Your task to perform on an android device: make emails show in primary in the gmail app Image 0: 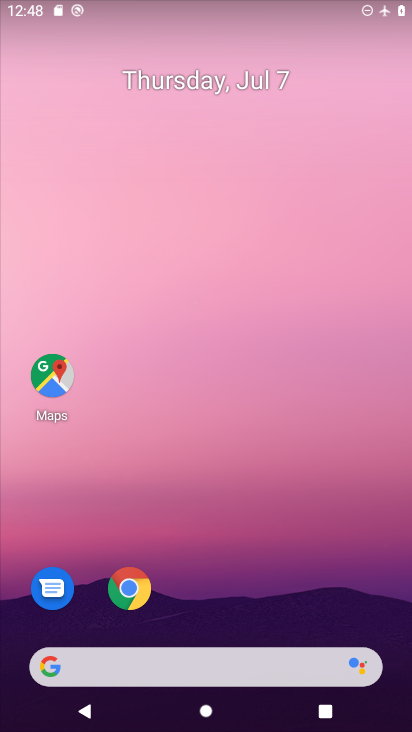
Step 0: drag from (329, 659) to (328, 12)
Your task to perform on an android device: make emails show in primary in the gmail app Image 1: 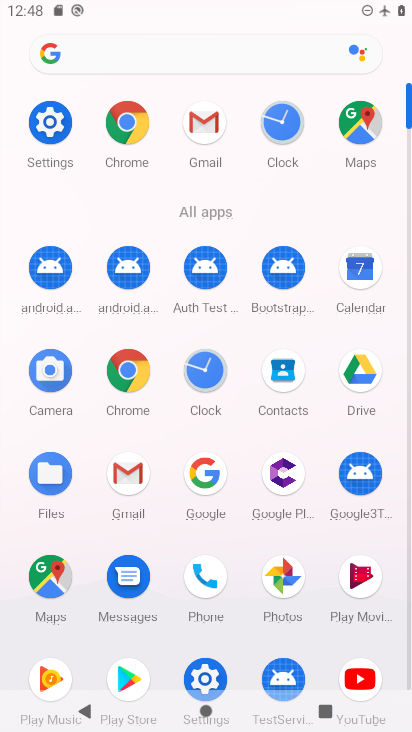
Step 1: click (118, 493)
Your task to perform on an android device: make emails show in primary in the gmail app Image 2: 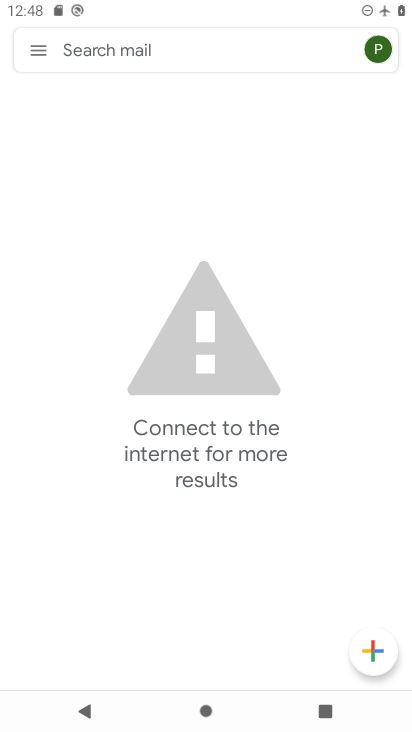
Step 2: click (36, 56)
Your task to perform on an android device: make emails show in primary in the gmail app Image 3: 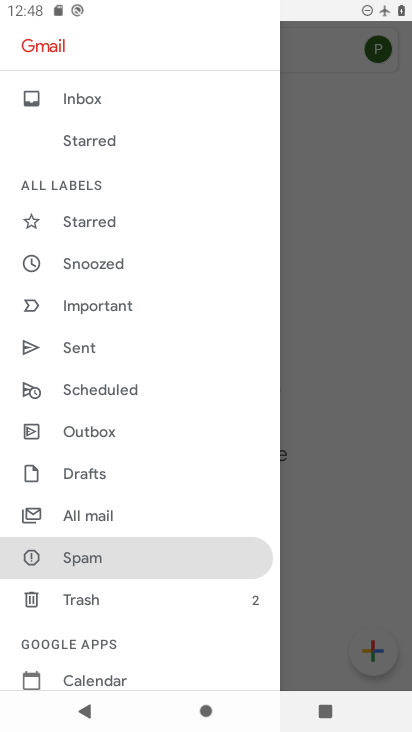
Step 3: drag from (150, 624) to (127, 145)
Your task to perform on an android device: make emails show in primary in the gmail app Image 4: 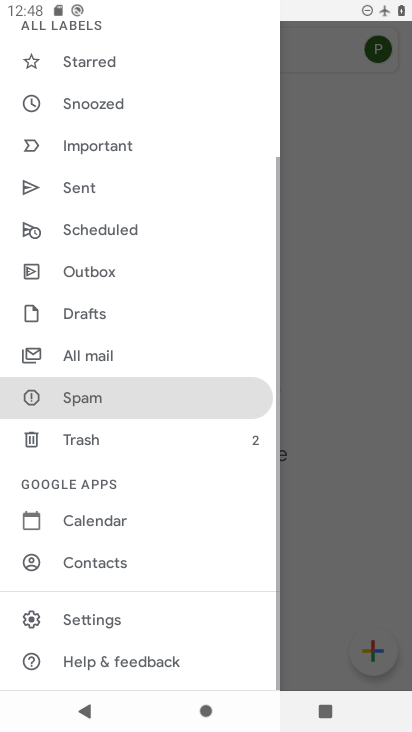
Step 4: click (143, 630)
Your task to perform on an android device: make emails show in primary in the gmail app Image 5: 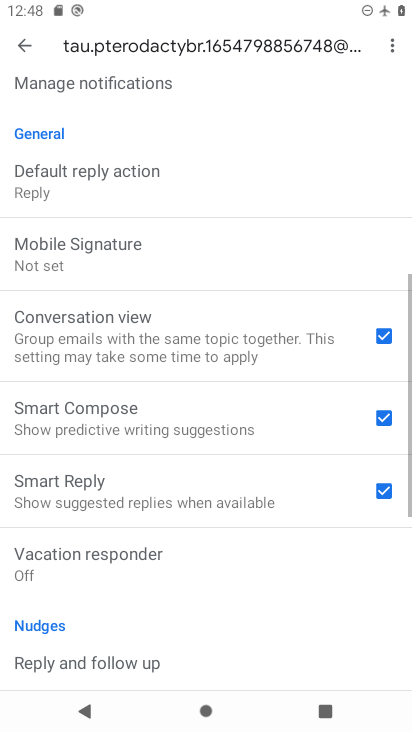
Step 5: drag from (142, 197) to (217, 706)
Your task to perform on an android device: make emails show in primary in the gmail app Image 6: 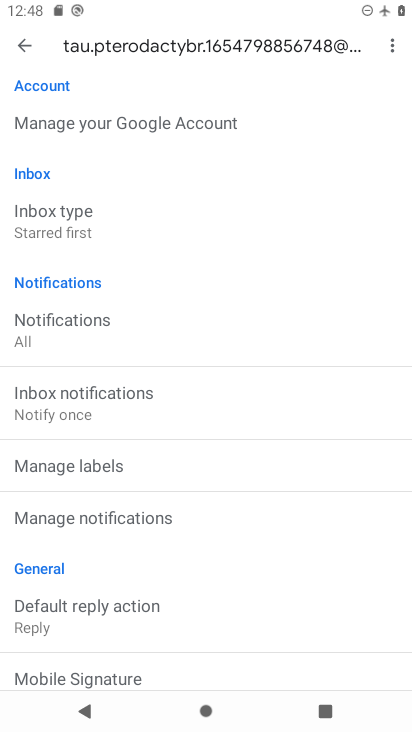
Step 6: drag from (149, 264) to (119, 516)
Your task to perform on an android device: make emails show in primary in the gmail app Image 7: 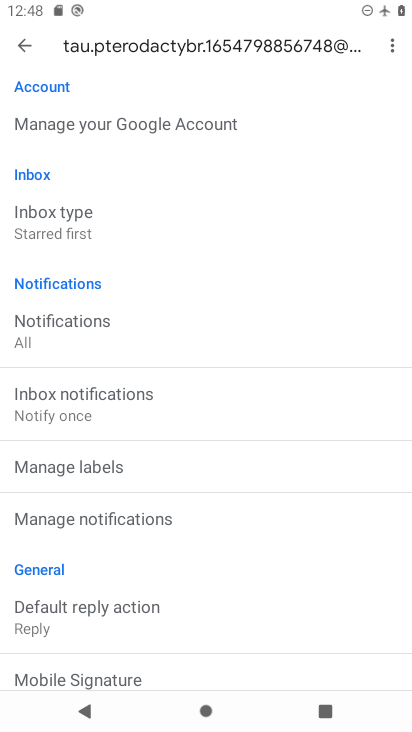
Step 7: click (87, 235)
Your task to perform on an android device: make emails show in primary in the gmail app Image 8: 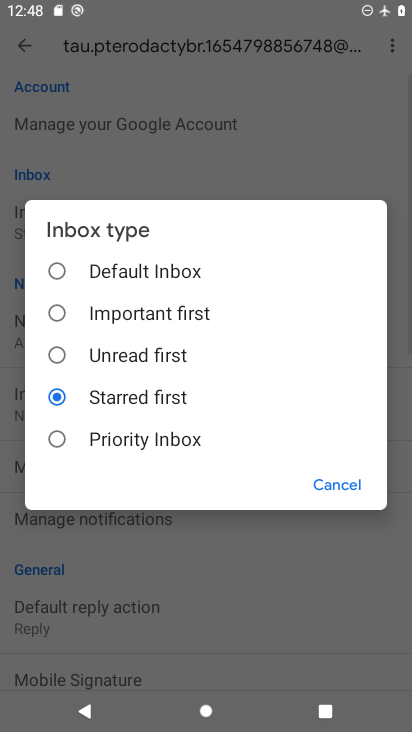
Step 8: click (102, 268)
Your task to perform on an android device: make emails show in primary in the gmail app Image 9: 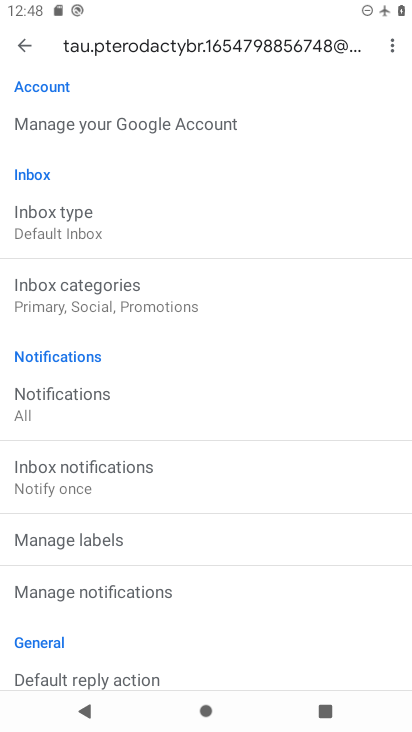
Step 9: press back button
Your task to perform on an android device: make emails show in primary in the gmail app Image 10: 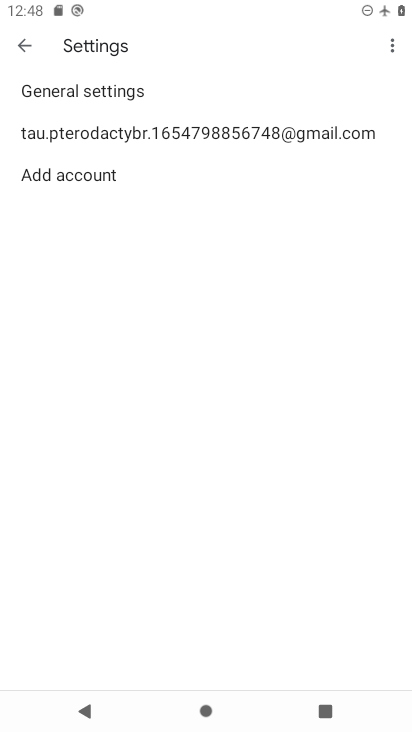
Step 10: press back button
Your task to perform on an android device: make emails show in primary in the gmail app Image 11: 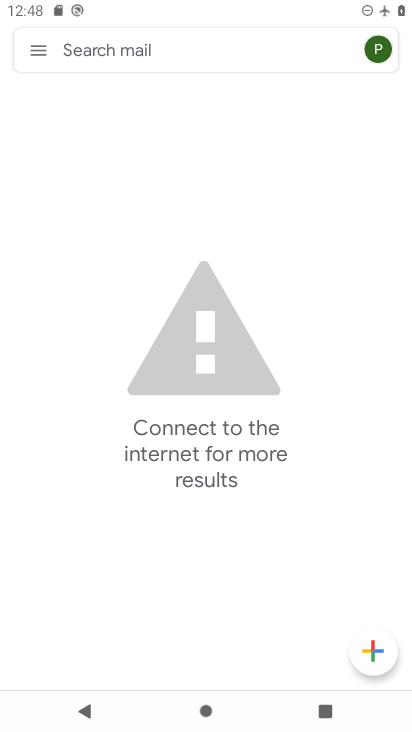
Step 11: click (31, 47)
Your task to perform on an android device: make emails show in primary in the gmail app Image 12: 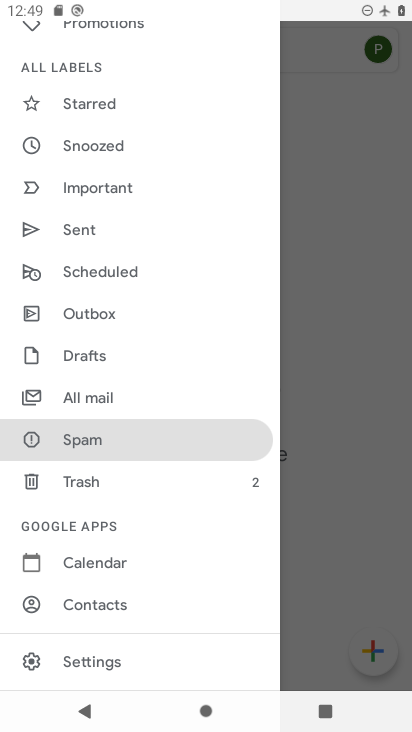
Step 12: drag from (155, 81) to (87, 670)
Your task to perform on an android device: make emails show in primary in the gmail app Image 13: 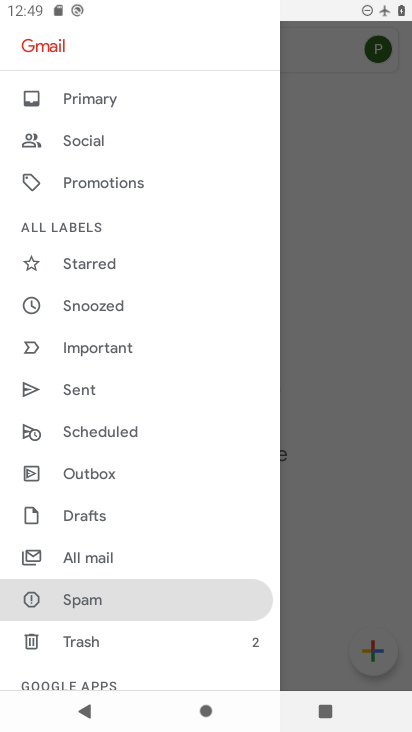
Step 13: click (123, 88)
Your task to perform on an android device: make emails show in primary in the gmail app Image 14: 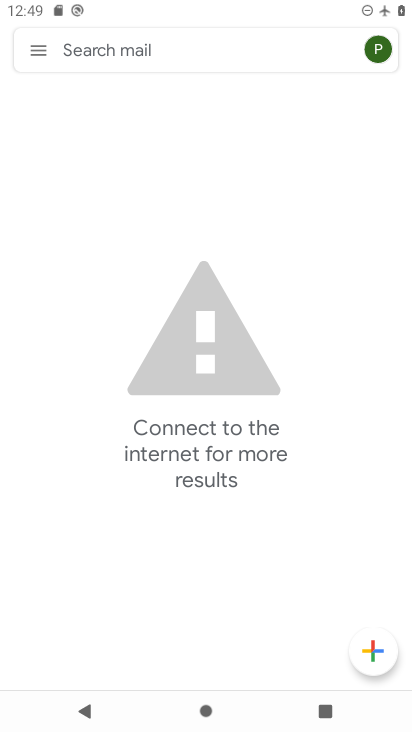
Step 14: task complete